Your task to perform on an android device: add a label to a message in the gmail app Image 0: 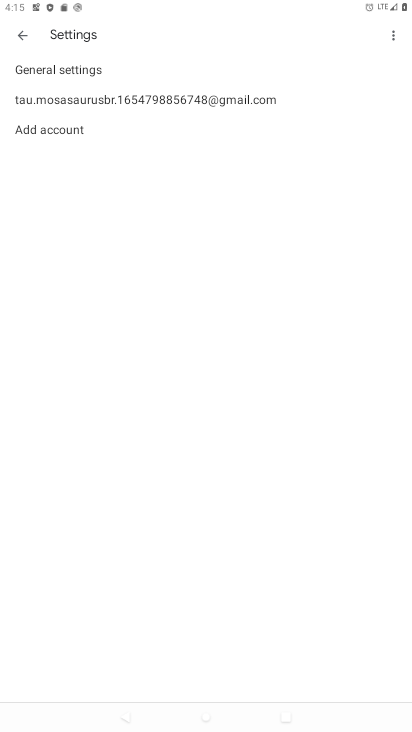
Step 0: press home button
Your task to perform on an android device: add a label to a message in the gmail app Image 1: 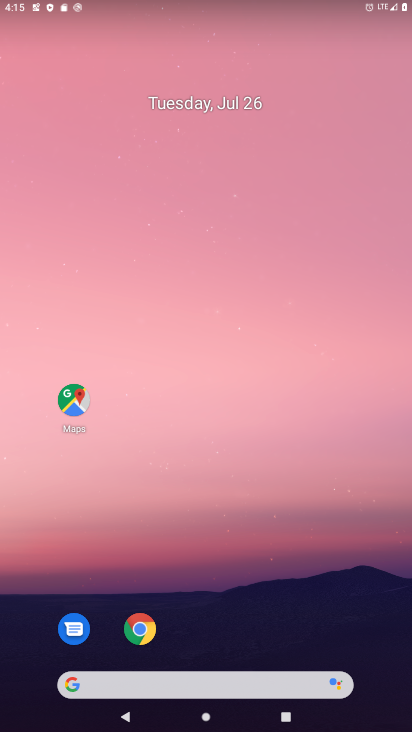
Step 1: drag from (229, 728) to (196, 171)
Your task to perform on an android device: add a label to a message in the gmail app Image 2: 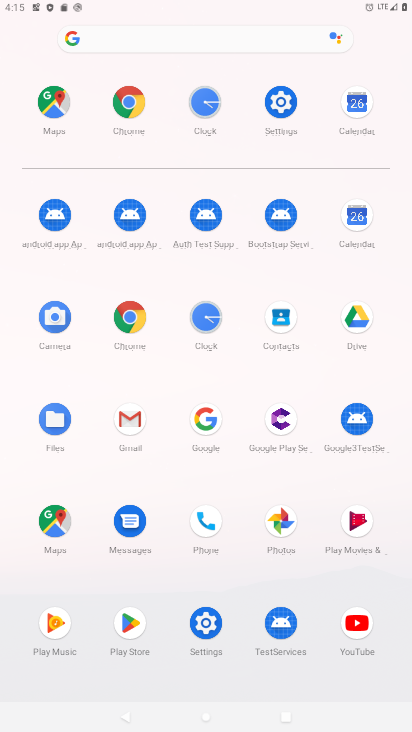
Step 2: click (135, 421)
Your task to perform on an android device: add a label to a message in the gmail app Image 3: 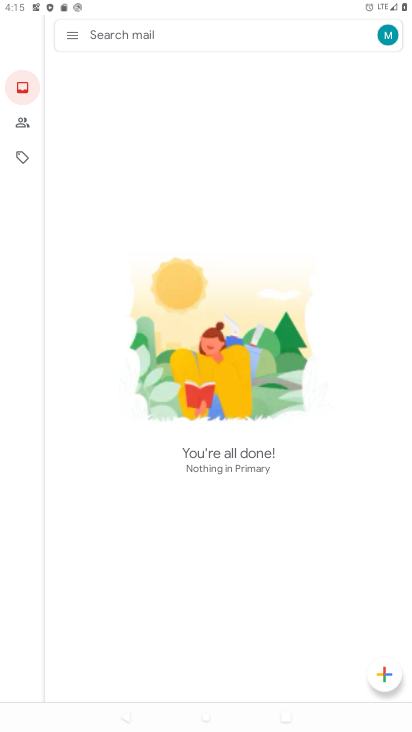
Step 3: click (70, 33)
Your task to perform on an android device: add a label to a message in the gmail app Image 4: 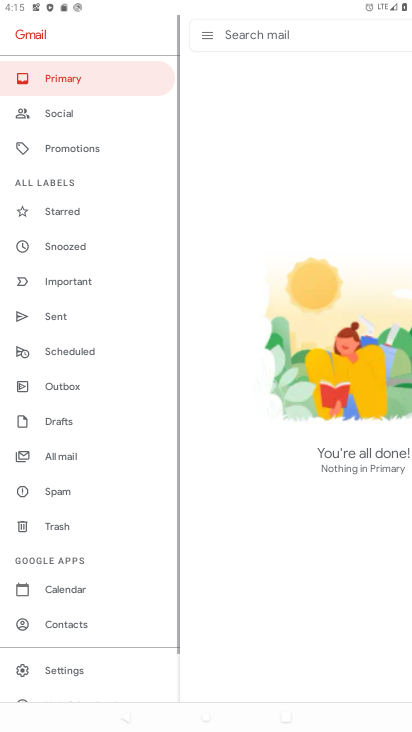
Step 4: click (51, 80)
Your task to perform on an android device: add a label to a message in the gmail app Image 5: 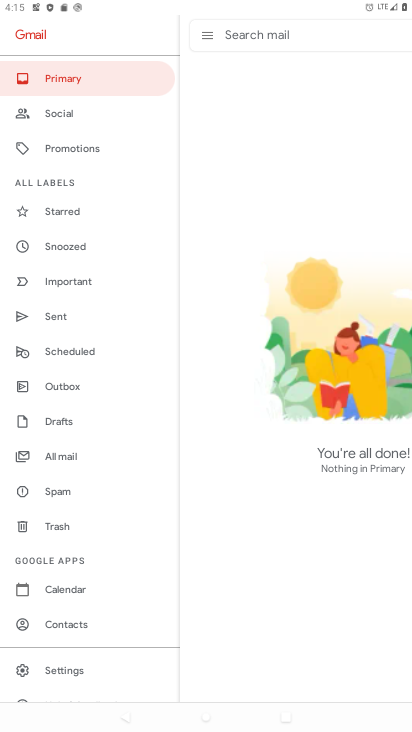
Step 5: task complete